Your task to perform on an android device: Show me the alarms in the clock app Image 0: 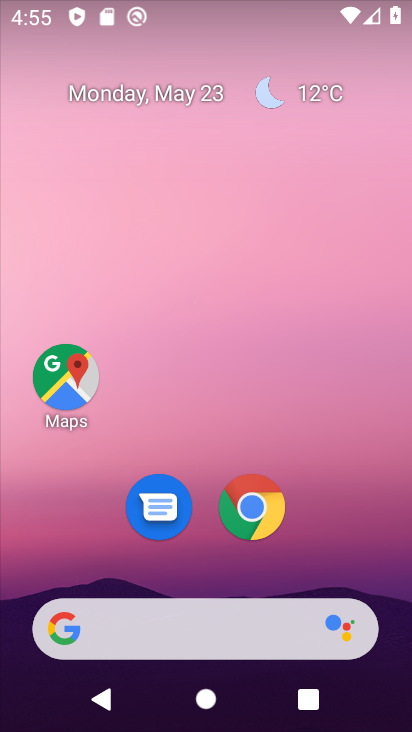
Step 0: press home button
Your task to perform on an android device: Show me the alarms in the clock app Image 1: 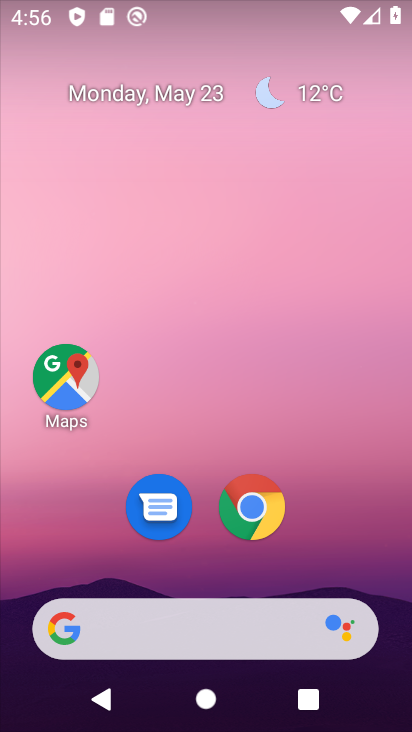
Step 1: drag from (20, 599) to (206, 168)
Your task to perform on an android device: Show me the alarms in the clock app Image 2: 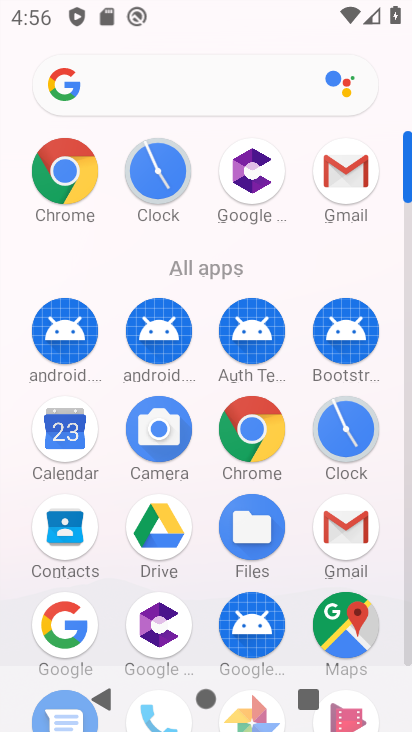
Step 2: click (168, 158)
Your task to perform on an android device: Show me the alarms in the clock app Image 3: 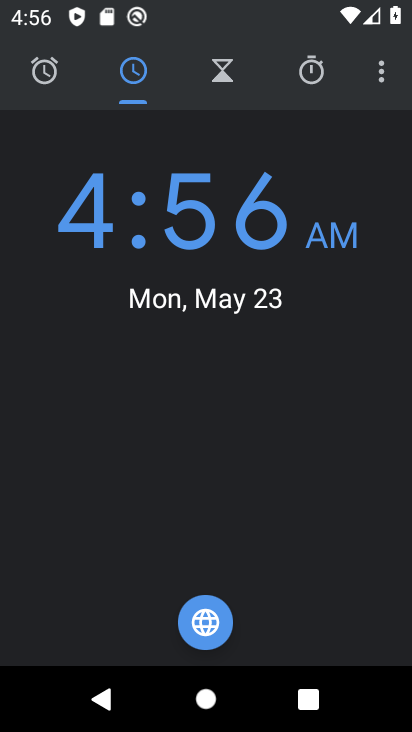
Step 3: click (50, 76)
Your task to perform on an android device: Show me the alarms in the clock app Image 4: 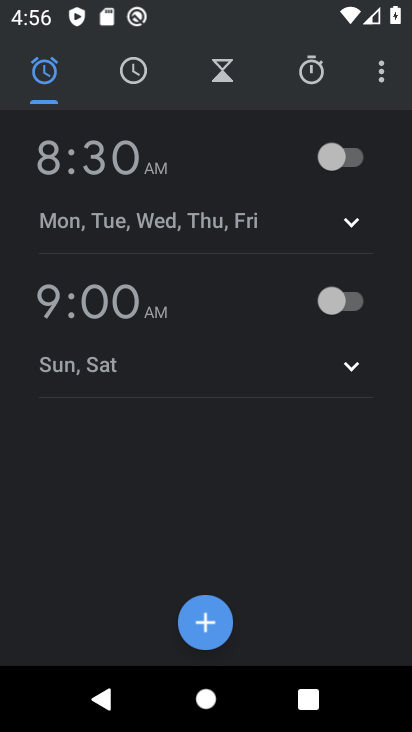
Step 4: task complete